Your task to perform on an android device: see sites visited before in the chrome app Image 0: 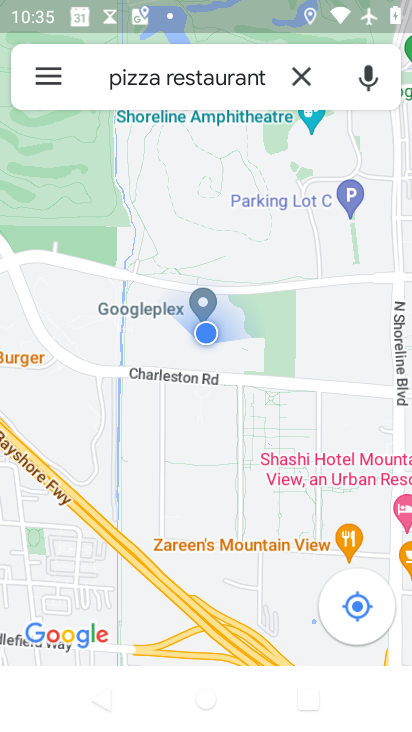
Step 0: press home button
Your task to perform on an android device: see sites visited before in the chrome app Image 1: 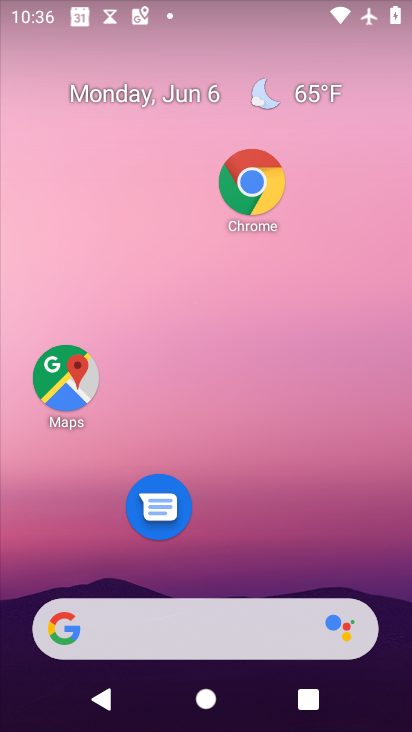
Step 1: click (249, 172)
Your task to perform on an android device: see sites visited before in the chrome app Image 2: 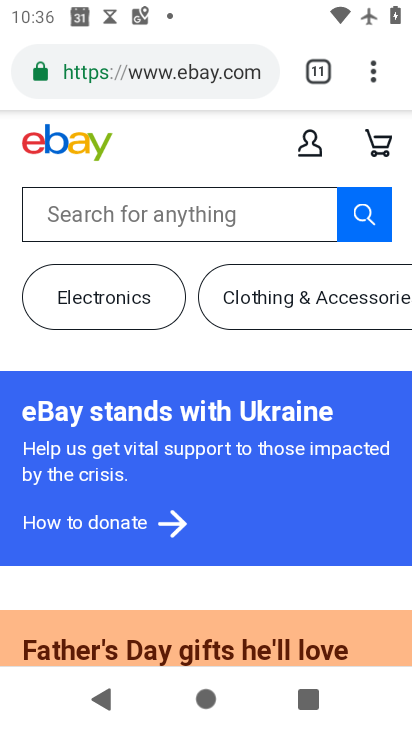
Step 2: click (369, 67)
Your task to perform on an android device: see sites visited before in the chrome app Image 3: 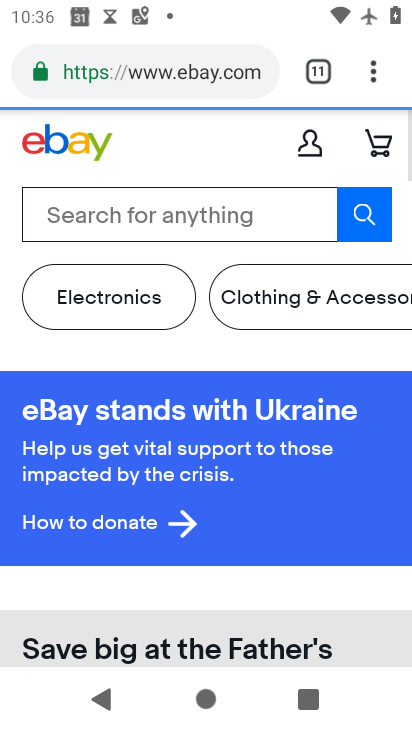
Step 3: click (369, 67)
Your task to perform on an android device: see sites visited before in the chrome app Image 4: 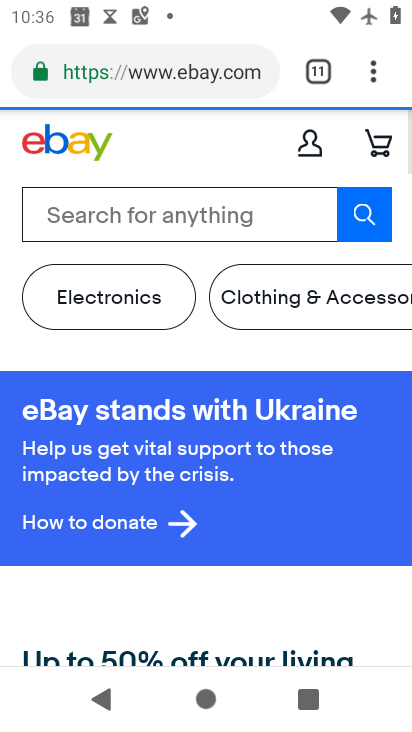
Step 4: click (381, 84)
Your task to perform on an android device: see sites visited before in the chrome app Image 5: 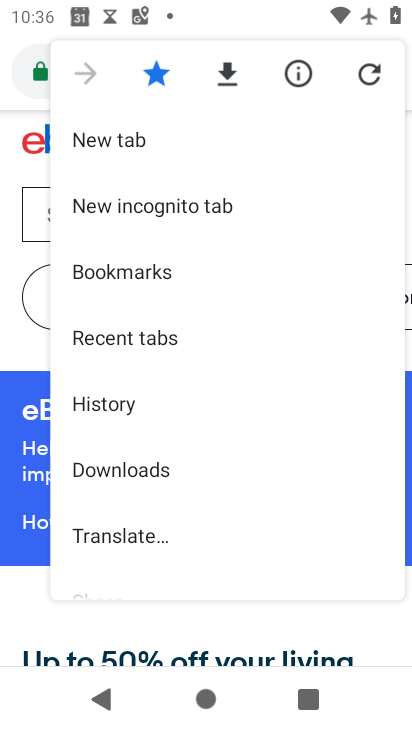
Step 5: click (143, 402)
Your task to perform on an android device: see sites visited before in the chrome app Image 6: 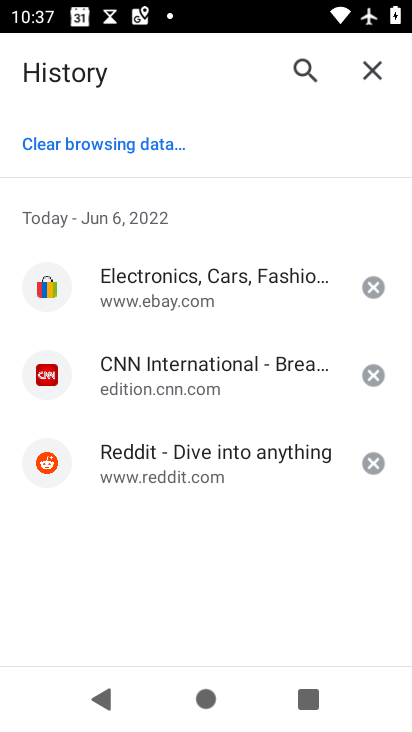
Step 6: task complete